Your task to perform on an android device: choose inbox layout in the gmail app Image 0: 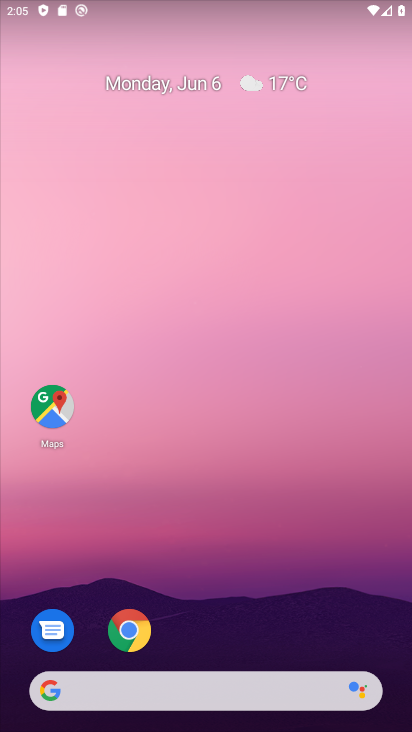
Step 0: drag from (238, 323) to (292, 15)
Your task to perform on an android device: choose inbox layout in the gmail app Image 1: 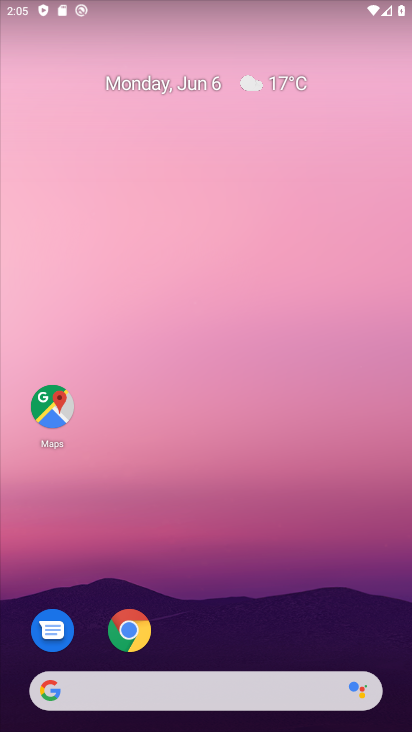
Step 1: drag from (268, 536) to (214, 16)
Your task to perform on an android device: choose inbox layout in the gmail app Image 2: 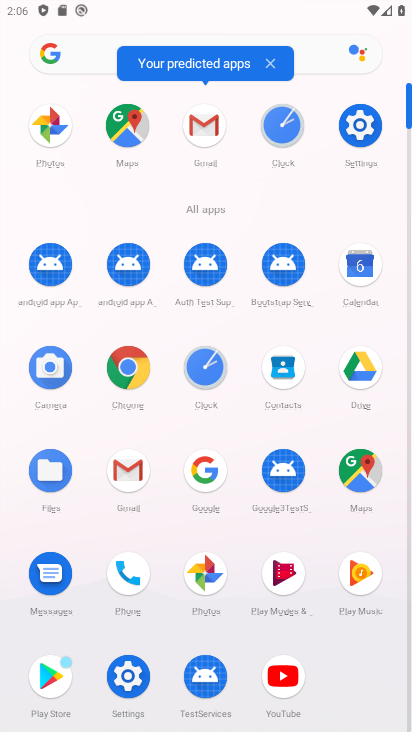
Step 2: click (118, 465)
Your task to perform on an android device: choose inbox layout in the gmail app Image 3: 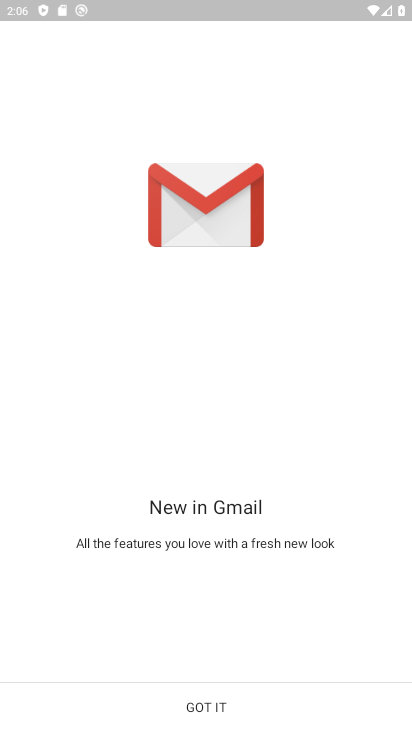
Step 3: click (216, 705)
Your task to perform on an android device: choose inbox layout in the gmail app Image 4: 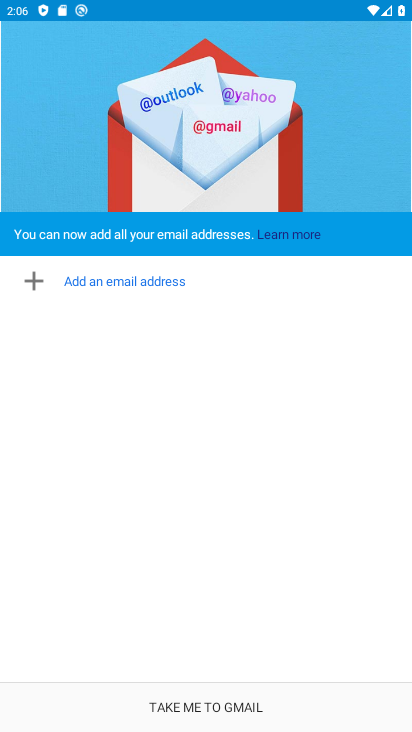
Step 4: click (216, 705)
Your task to perform on an android device: choose inbox layout in the gmail app Image 5: 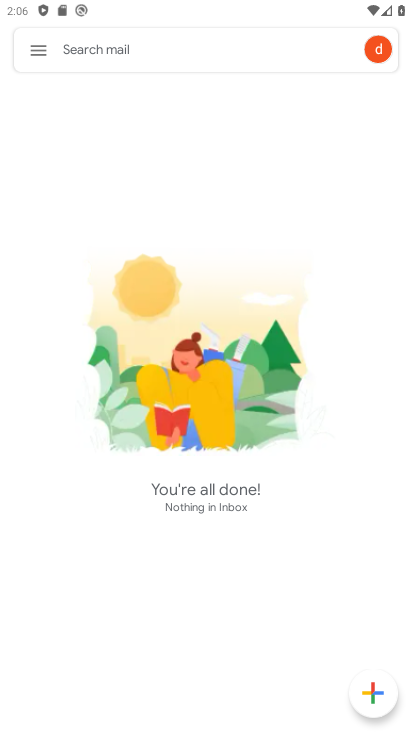
Step 5: click (37, 47)
Your task to perform on an android device: choose inbox layout in the gmail app Image 6: 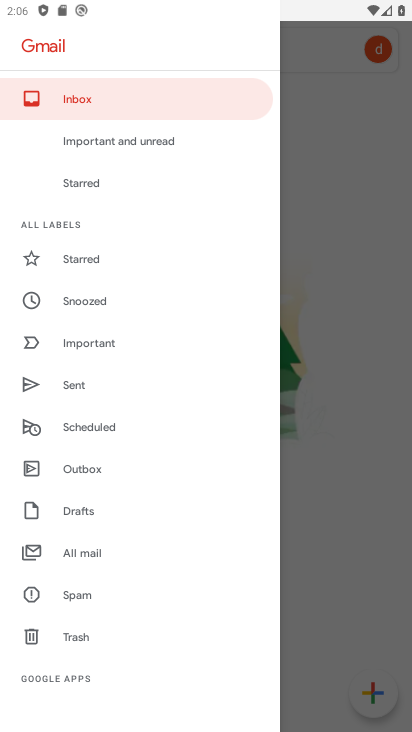
Step 6: drag from (133, 593) to (145, 124)
Your task to perform on an android device: choose inbox layout in the gmail app Image 7: 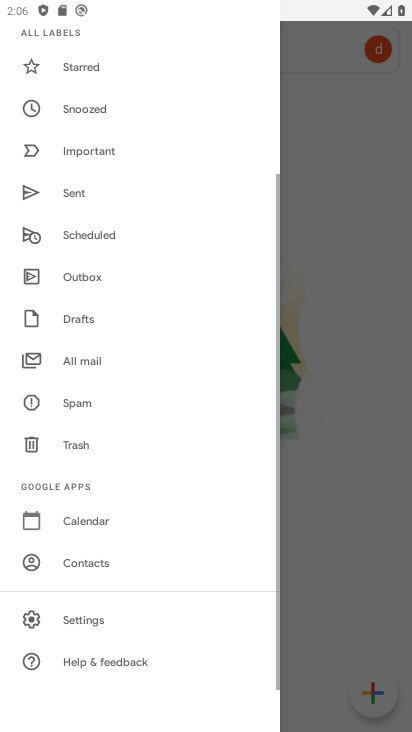
Step 7: click (93, 619)
Your task to perform on an android device: choose inbox layout in the gmail app Image 8: 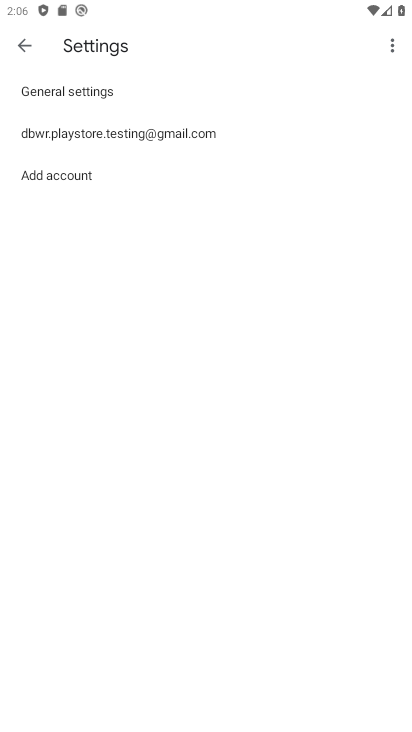
Step 8: click (144, 130)
Your task to perform on an android device: choose inbox layout in the gmail app Image 9: 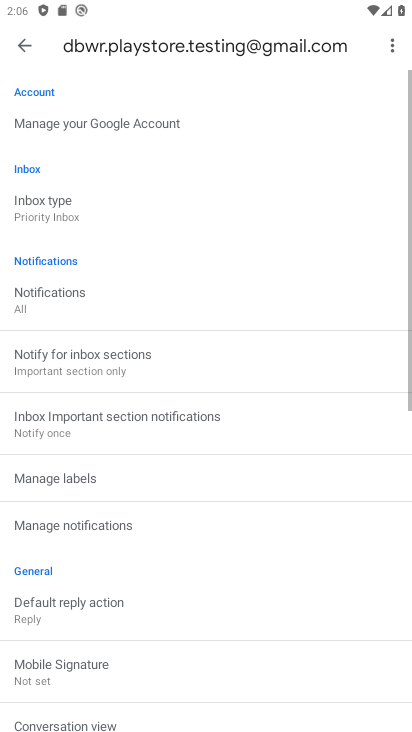
Step 9: click (38, 207)
Your task to perform on an android device: choose inbox layout in the gmail app Image 10: 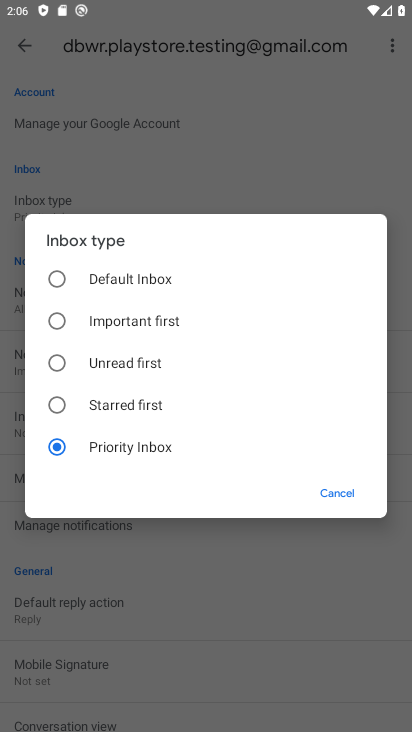
Step 10: click (114, 399)
Your task to perform on an android device: choose inbox layout in the gmail app Image 11: 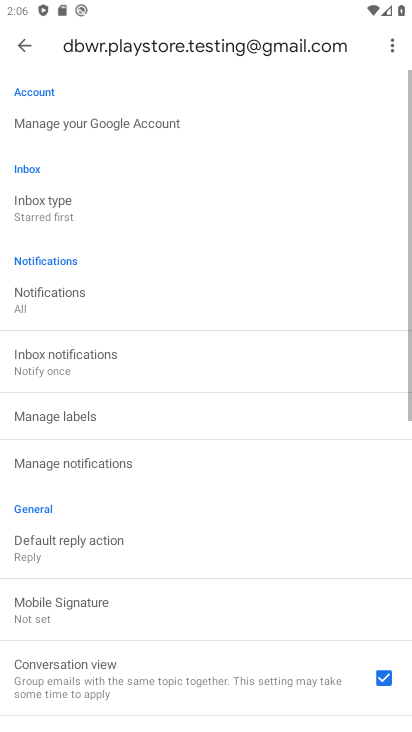
Step 11: task complete